Your task to perform on an android device: What's the weather going to be this weekend? Image 0: 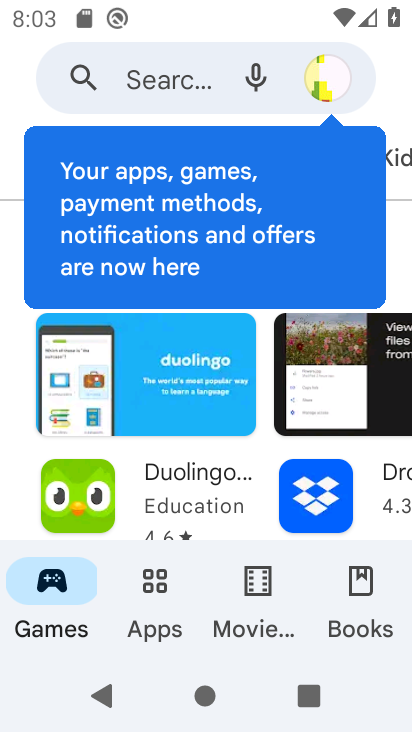
Step 0: press back button
Your task to perform on an android device: What's the weather going to be this weekend? Image 1: 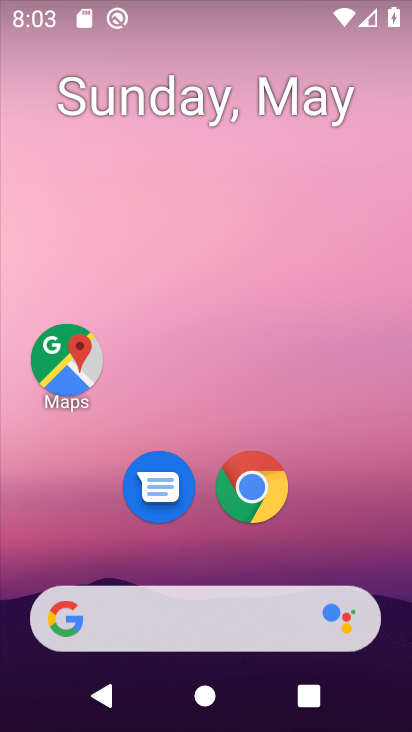
Step 1: click (251, 489)
Your task to perform on an android device: What's the weather going to be this weekend? Image 2: 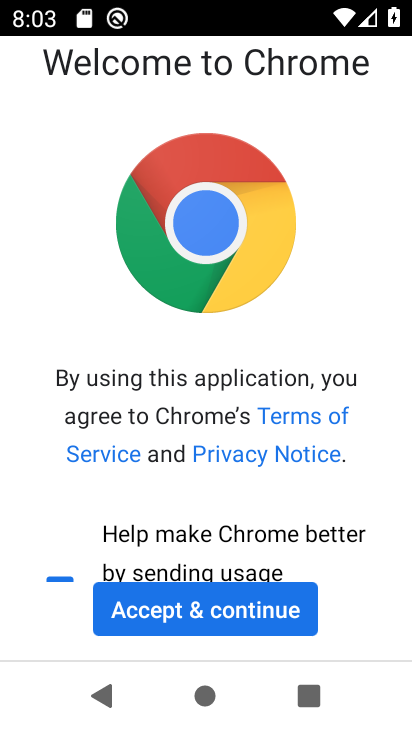
Step 2: click (201, 617)
Your task to perform on an android device: What's the weather going to be this weekend? Image 3: 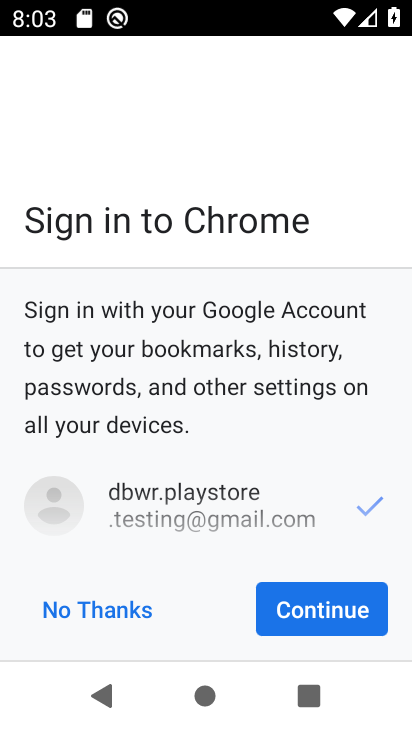
Step 3: click (330, 608)
Your task to perform on an android device: What's the weather going to be this weekend? Image 4: 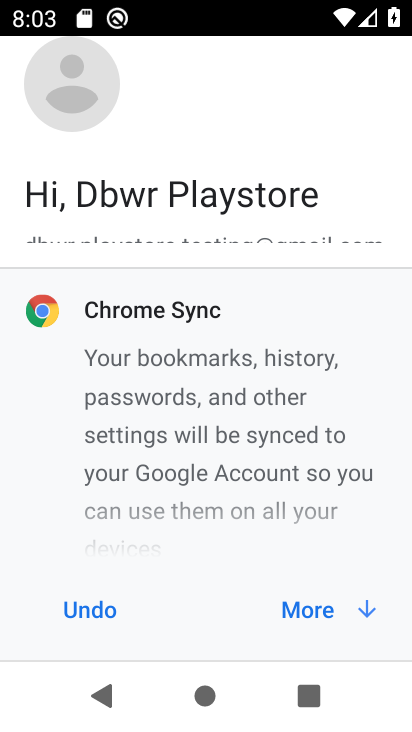
Step 4: click (330, 608)
Your task to perform on an android device: What's the weather going to be this weekend? Image 5: 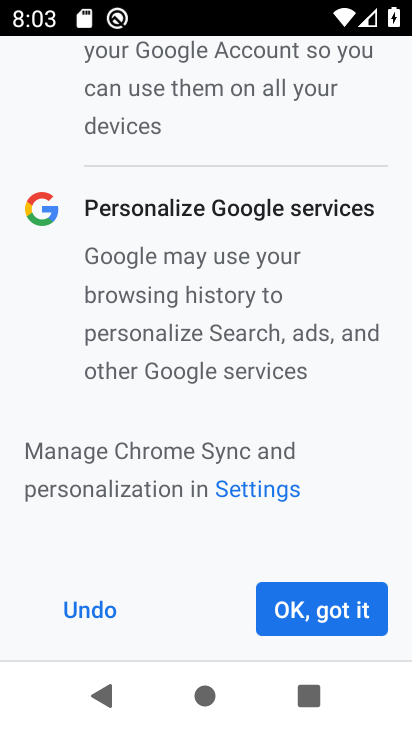
Step 5: click (330, 608)
Your task to perform on an android device: What's the weather going to be this weekend? Image 6: 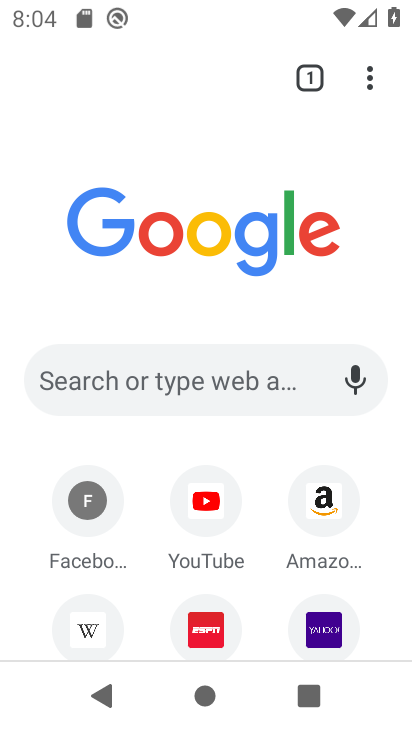
Step 6: click (248, 386)
Your task to perform on an android device: What's the weather going to be this weekend? Image 7: 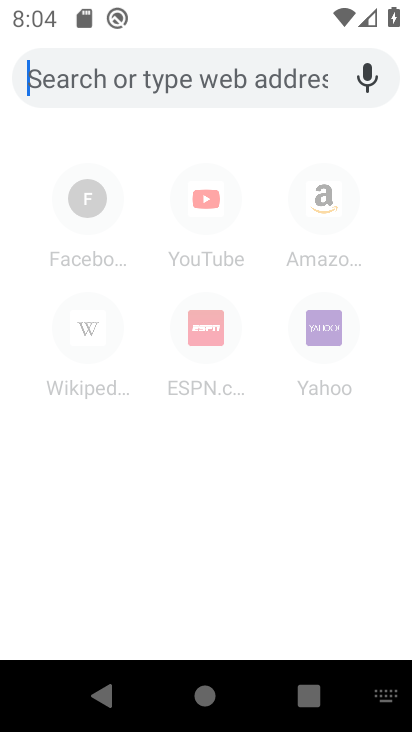
Step 7: type "What's the weather going to be this weekend?"
Your task to perform on an android device: What's the weather going to be this weekend? Image 8: 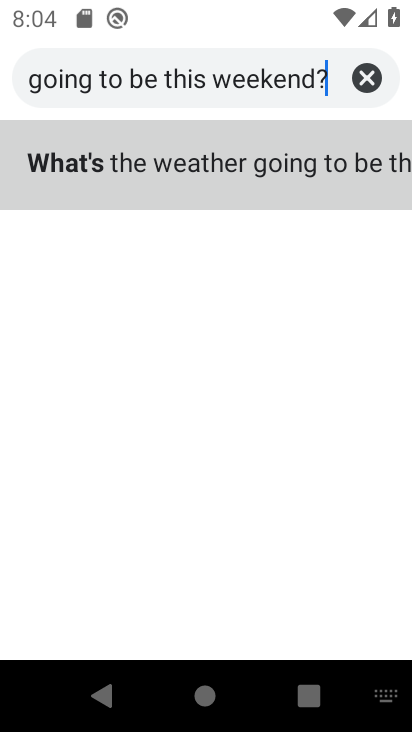
Step 8: click (144, 171)
Your task to perform on an android device: What's the weather going to be this weekend? Image 9: 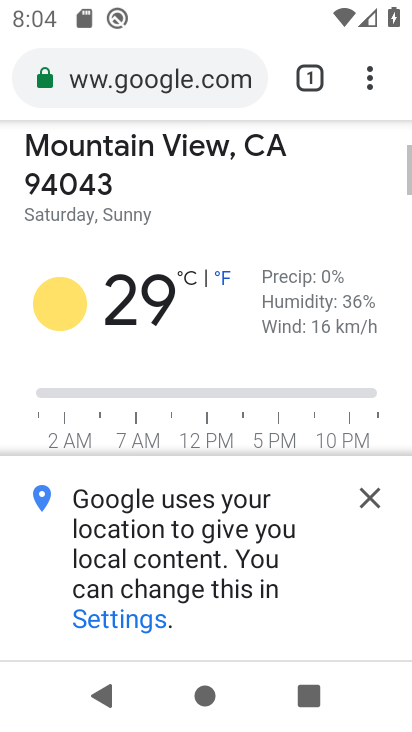
Step 9: click (374, 499)
Your task to perform on an android device: What's the weather going to be this weekend? Image 10: 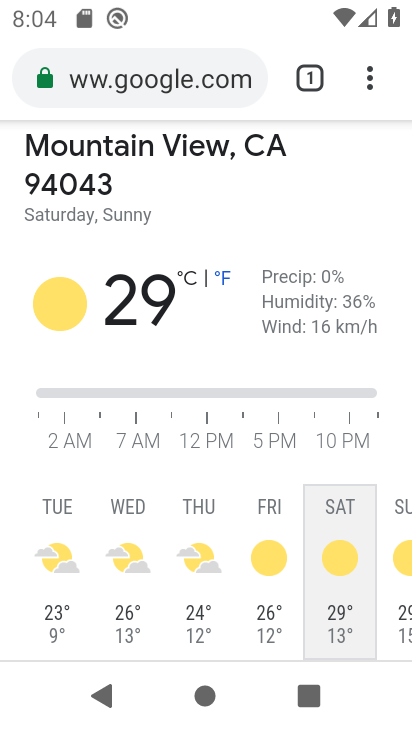
Step 10: task complete